Your task to perform on an android device: visit the assistant section in the google photos Image 0: 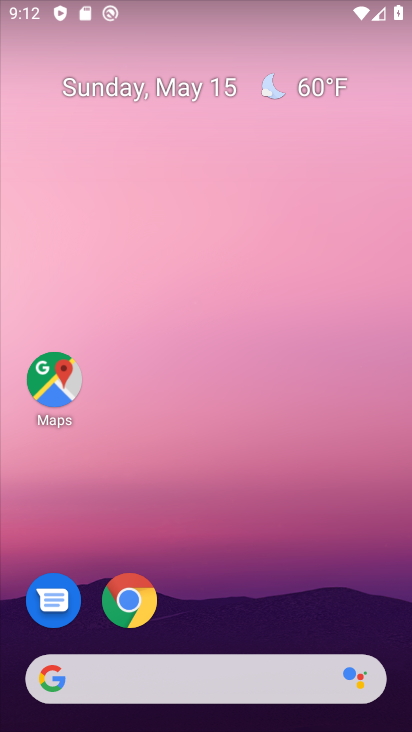
Step 0: drag from (240, 633) to (317, 110)
Your task to perform on an android device: visit the assistant section in the google photos Image 1: 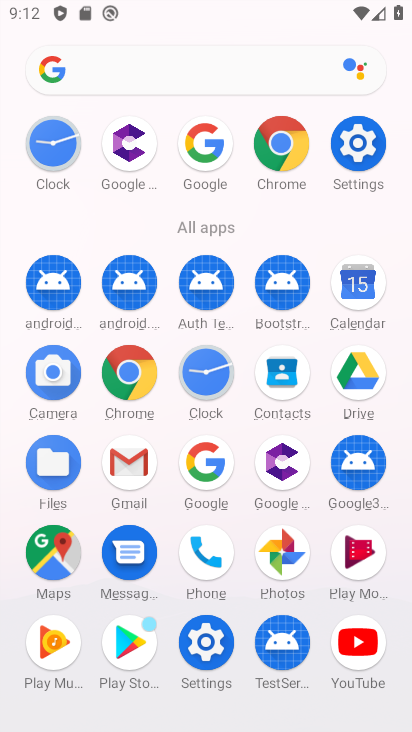
Step 1: click (267, 560)
Your task to perform on an android device: visit the assistant section in the google photos Image 2: 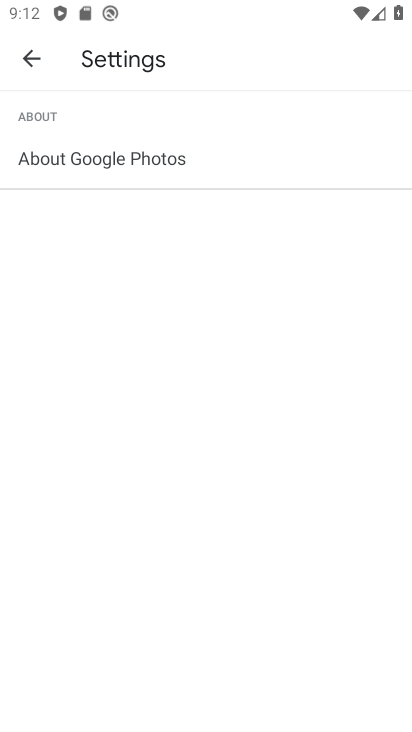
Step 2: press back button
Your task to perform on an android device: visit the assistant section in the google photos Image 3: 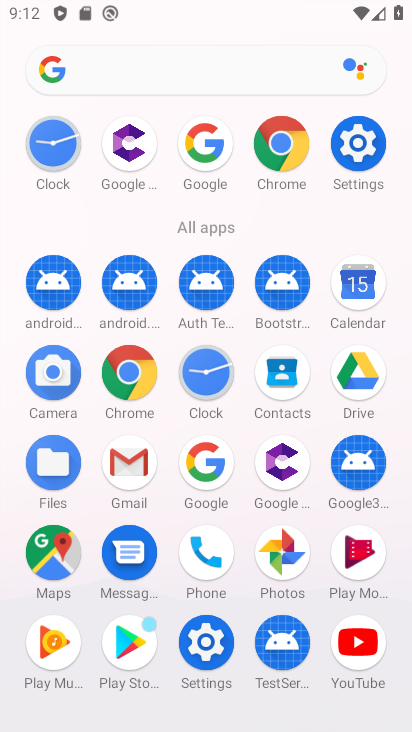
Step 3: click (291, 563)
Your task to perform on an android device: visit the assistant section in the google photos Image 4: 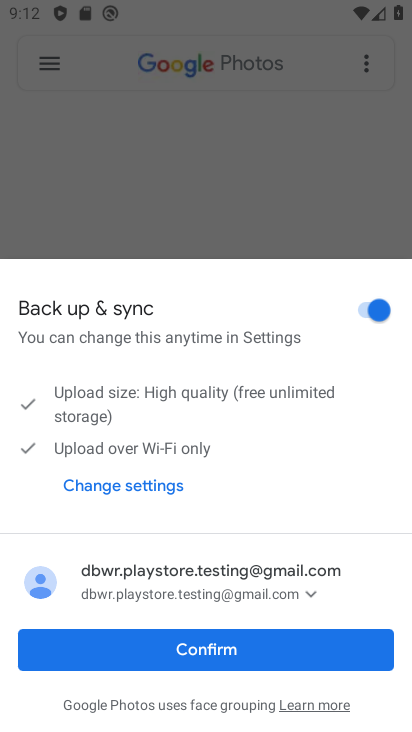
Step 4: click (224, 631)
Your task to perform on an android device: visit the assistant section in the google photos Image 5: 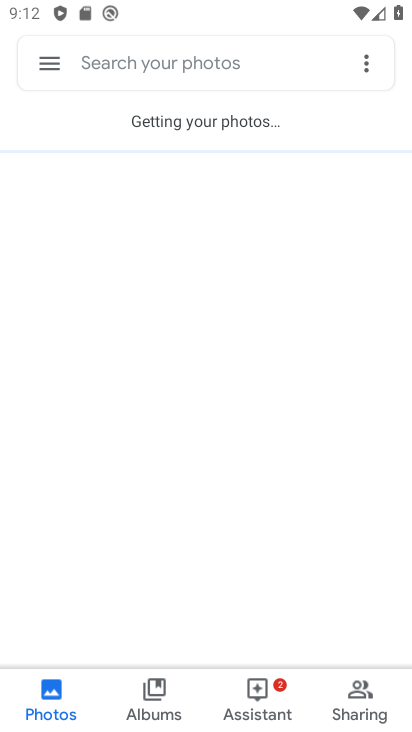
Step 5: click (253, 696)
Your task to perform on an android device: visit the assistant section in the google photos Image 6: 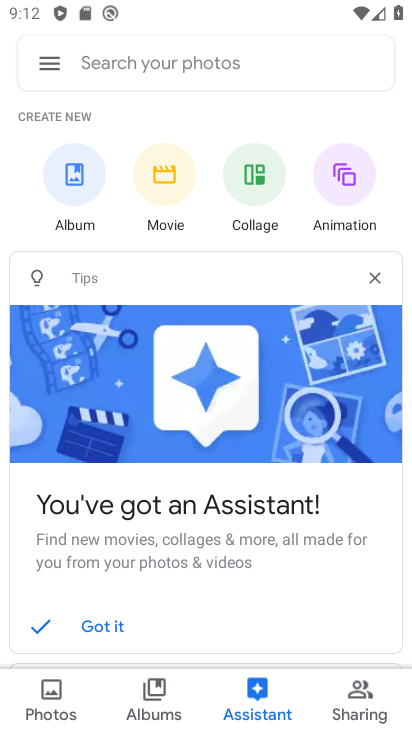
Step 6: task complete